Your task to perform on an android device: toggle javascript in the chrome app Image 0: 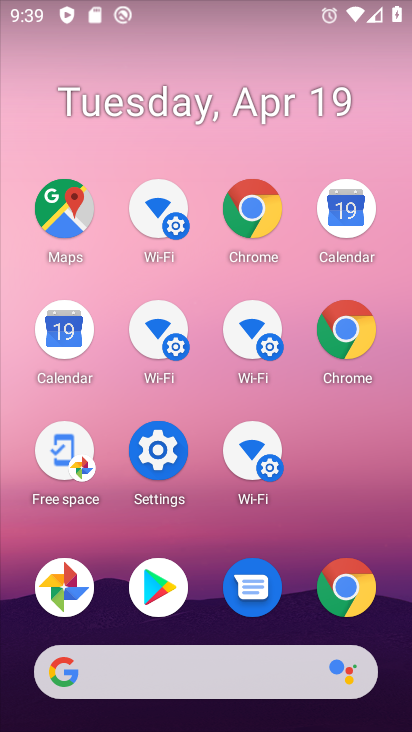
Step 0: click (335, 592)
Your task to perform on an android device: toggle javascript in the chrome app Image 1: 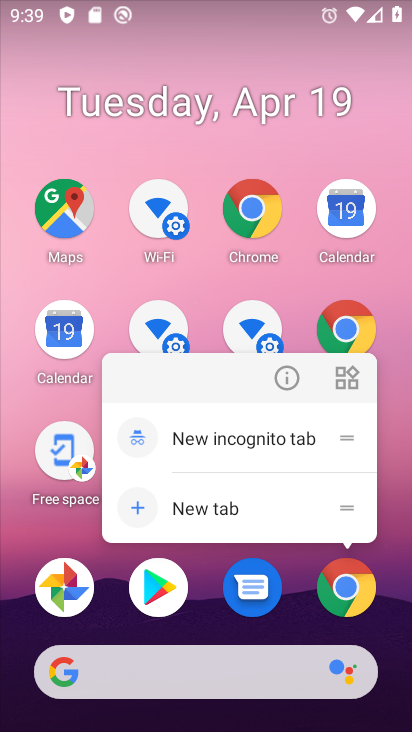
Step 1: click (349, 573)
Your task to perform on an android device: toggle javascript in the chrome app Image 2: 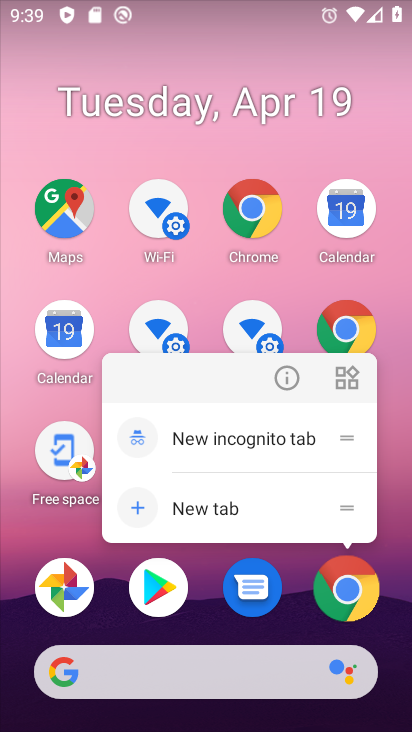
Step 2: click (349, 564)
Your task to perform on an android device: toggle javascript in the chrome app Image 3: 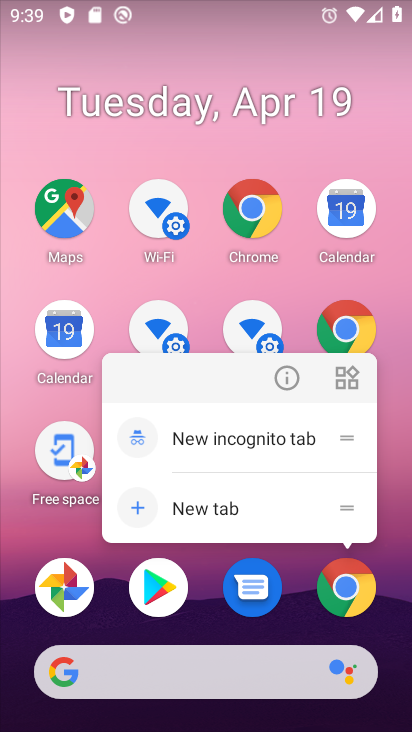
Step 3: click (382, 504)
Your task to perform on an android device: toggle javascript in the chrome app Image 4: 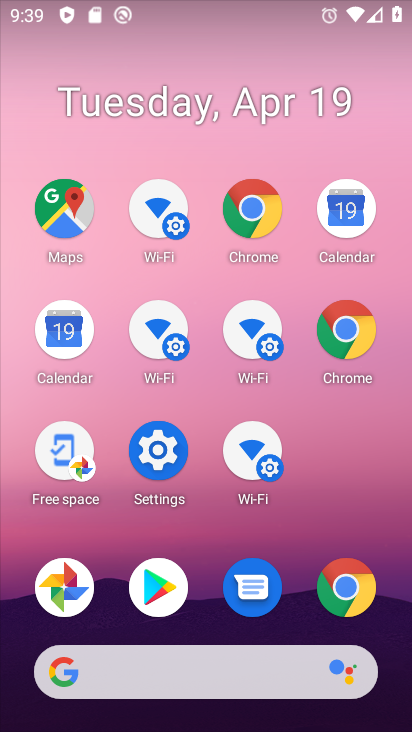
Step 4: click (351, 589)
Your task to perform on an android device: toggle javascript in the chrome app Image 5: 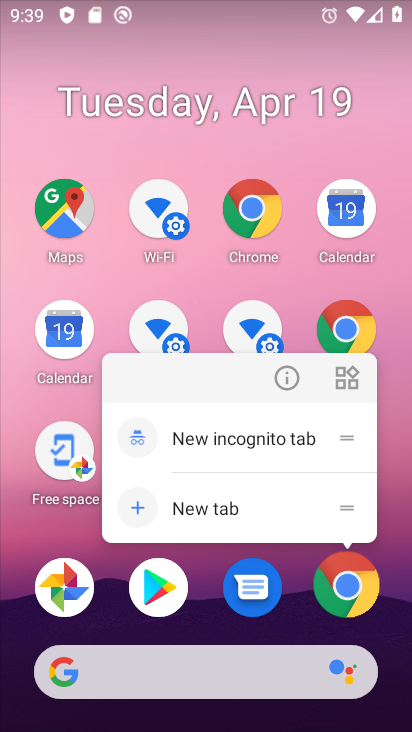
Step 5: click (351, 586)
Your task to perform on an android device: toggle javascript in the chrome app Image 6: 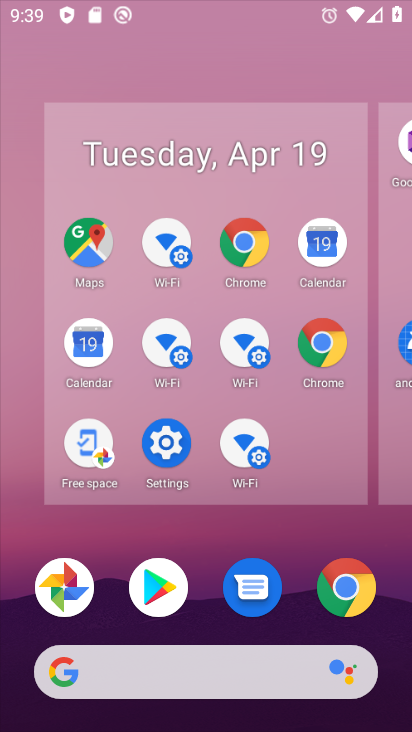
Step 6: click (358, 564)
Your task to perform on an android device: toggle javascript in the chrome app Image 7: 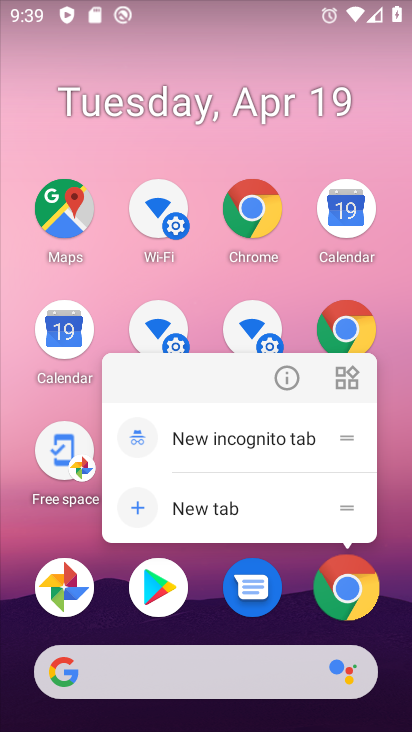
Step 7: click (350, 590)
Your task to perform on an android device: toggle javascript in the chrome app Image 8: 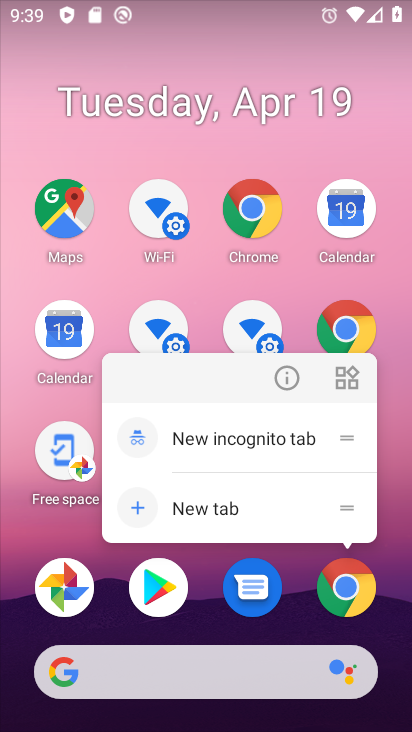
Step 8: click (341, 575)
Your task to perform on an android device: toggle javascript in the chrome app Image 9: 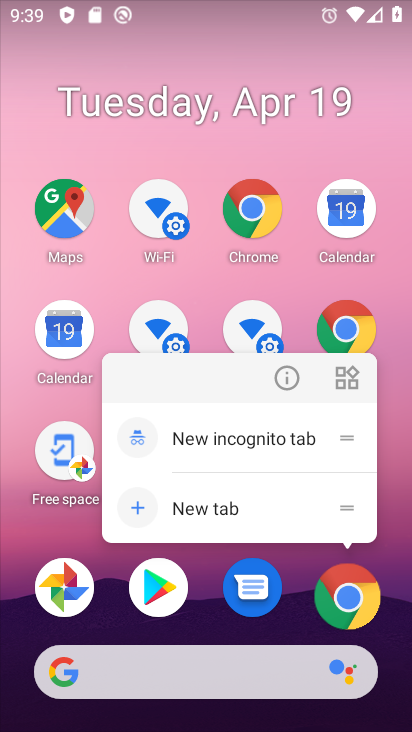
Step 9: click (395, 370)
Your task to perform on an android device: toggle javascript in the chrome app Image 10: 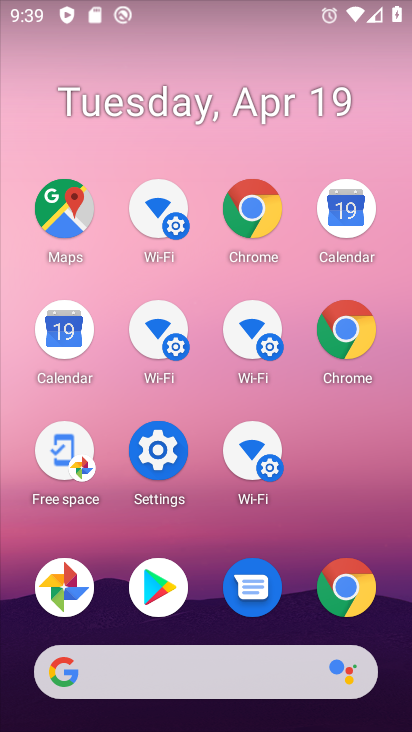
Step 10: click (345, 327)
Your task to perform on an android device: toggle javascript in the chrome app Image 11: 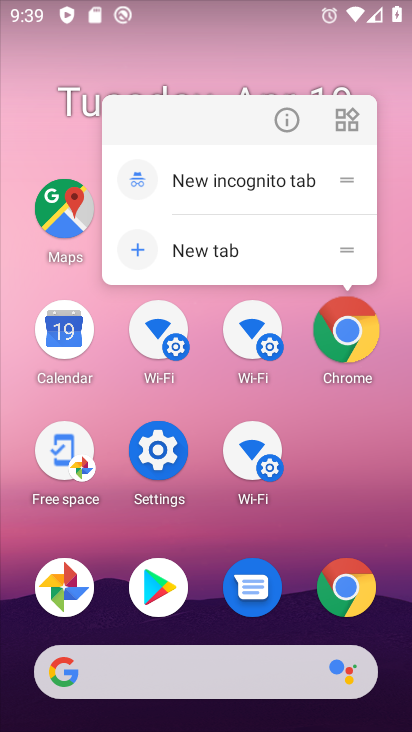
Step 11: click (345, 327)
Your task to perform on an android device: toggle javascript in the chrome app Image 12: 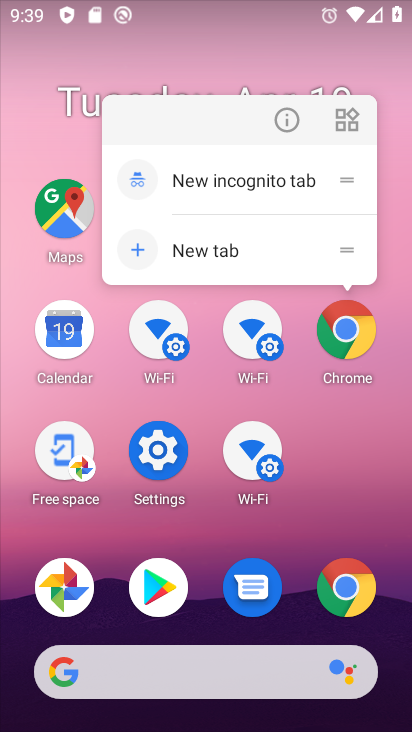
Step 12: click (345, 327)
Your task to perform on an android device: toggle javascript in the chrome app Image 13: 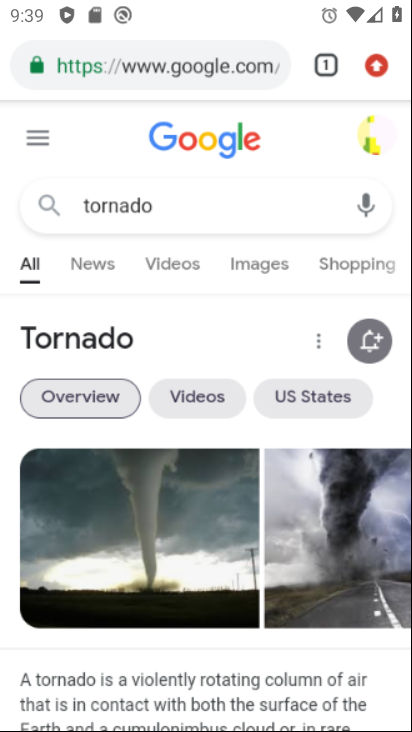
Step 13: click (345, 327)
Your task to perform on an android device: toggle javascript in the chrome app Image 14: 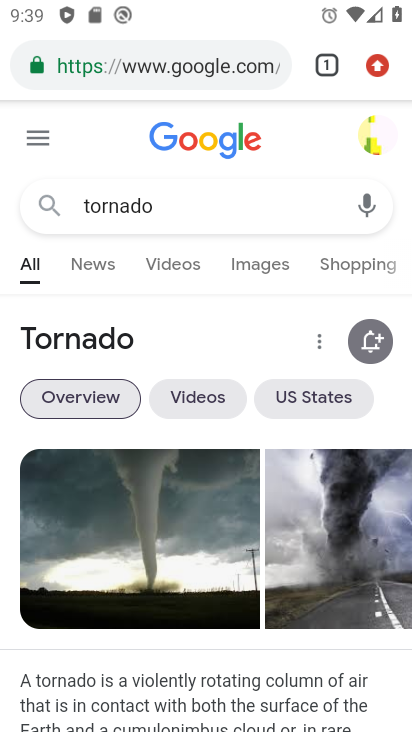
Step 14: click (378, 64)
Your task to perform on an android device: toggle javascript in the chrome app Image 15: 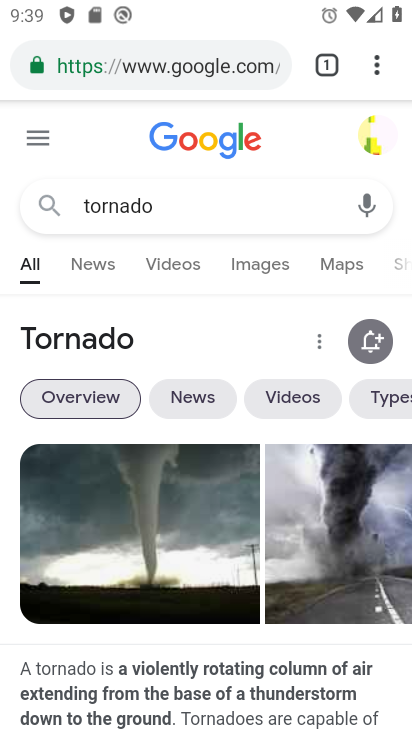
Step 15: click (374, 63)
Your task to perform on an android device: toggle javascript in the chrome app Image 16: 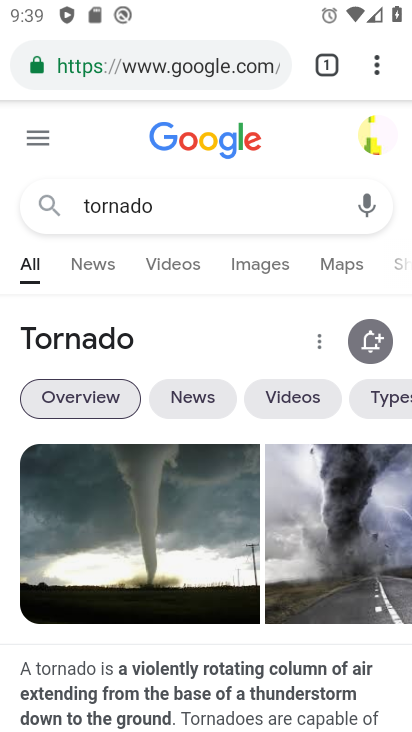
Step 16: click (373, 59)
Your task to perform on an android device: toggle javascript in the chrome app Image 17: 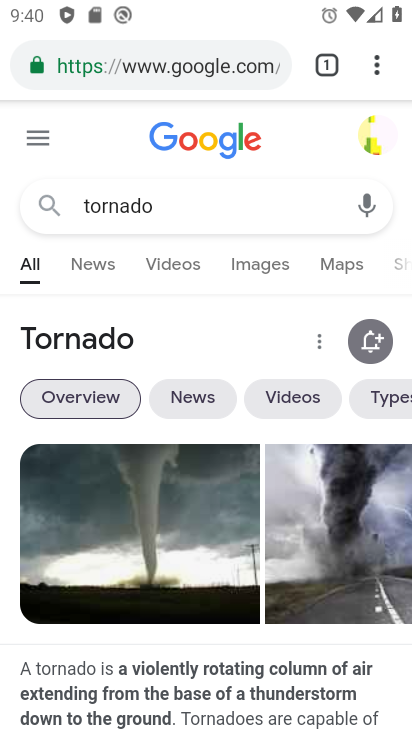
Step 17: click (378, 66)
Your task to perform on an android device: toggle javascript in the chrome app Image 18: 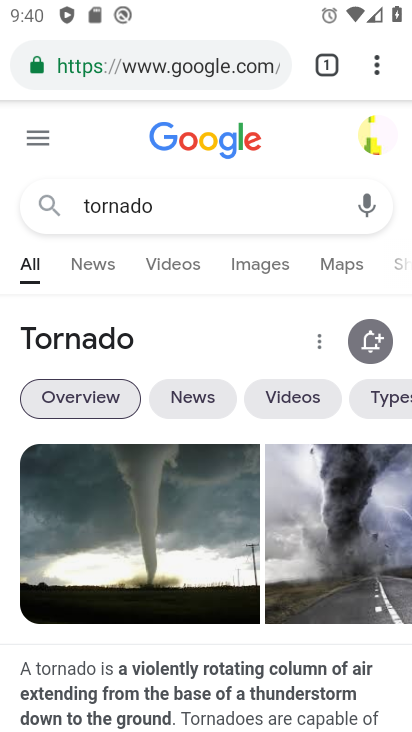
Step 18: click (376, 70)
Your task to perform on an android device: toggle javascript in the chrome app Image 19: 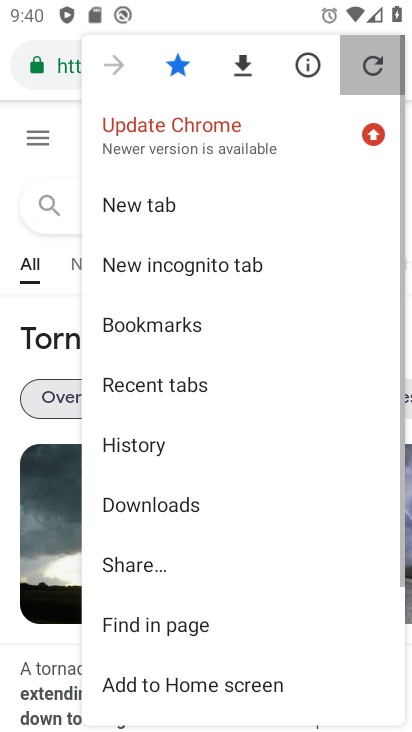
Step 19: drag from (191, 273) to (251, 481)
Your task to perform on an android device: toggle javascript in the chrome app Image 20: 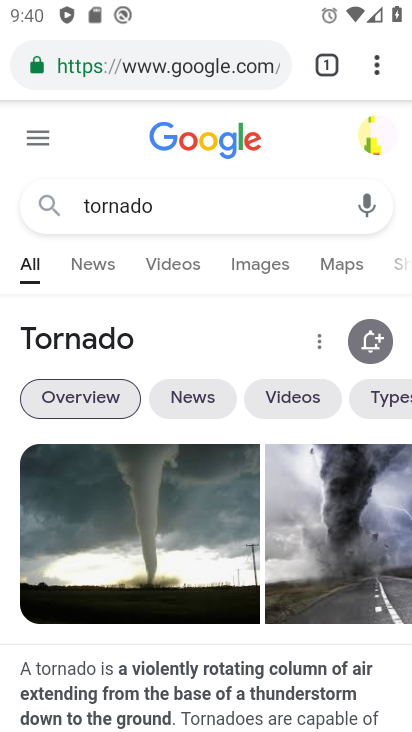
Step 20: click (378, 63)
Your task to perform on an android device: toggle javascript in the chrome app Image 21: 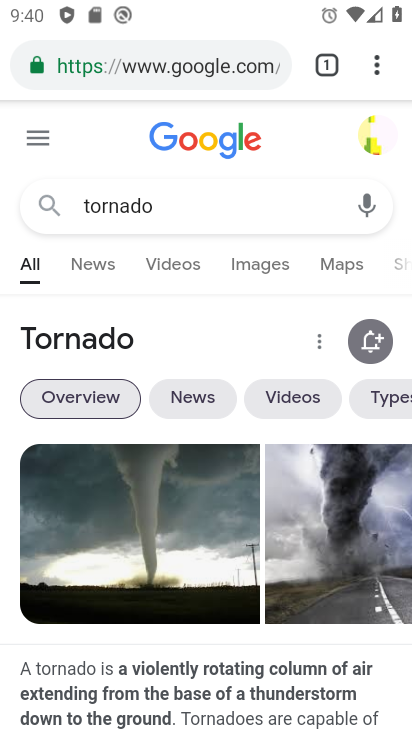
Step 21: click (370, 67)
Your task to perform on an android device: toggle javascript in the chrome app Image 22: 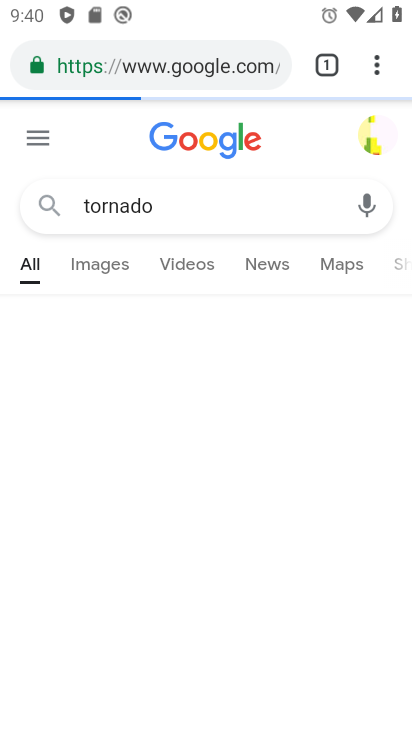
Step 22: click (374, 67)
Your task to perform on an android device: toggle javascript in the chrome app Image 23: 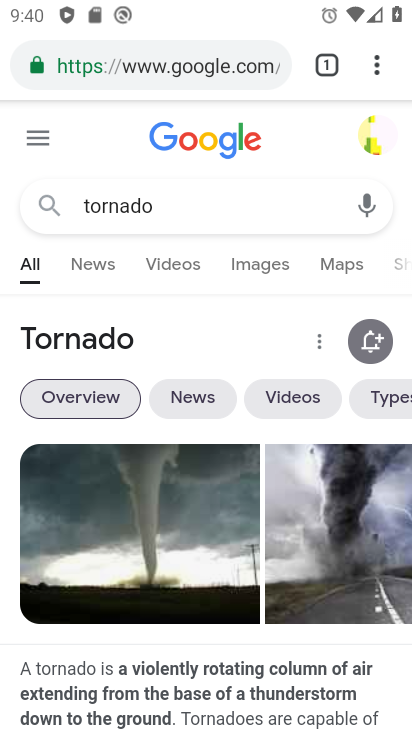
Step 23: click (369, 67)
Your task to perform on an android device: toggle javascript in the chrome app Image 24: 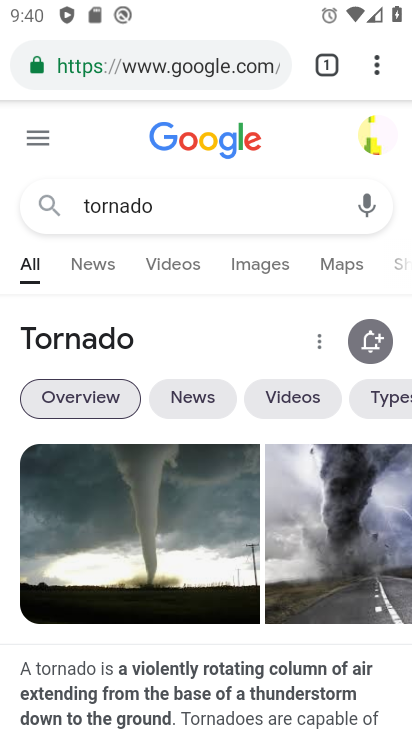
Step 24: click (376, 66)
Your task to perform on an android device: toggle javascript in the chrome app Image 25: 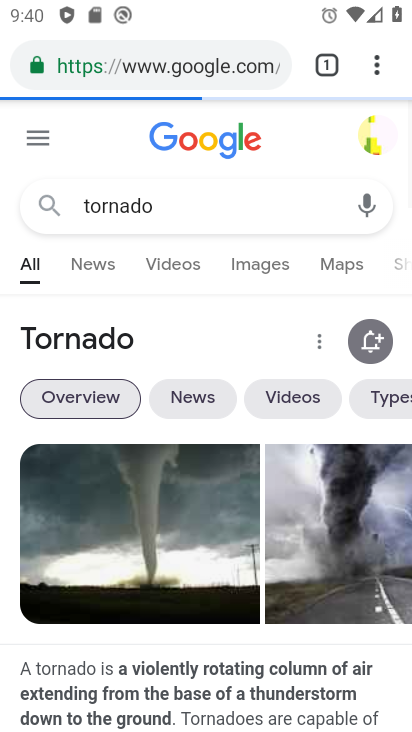
Step 25: drag from (376, 66) to (333, 602)
Your task to perform on an android device: toggle javascript in the chrome app Image 26: 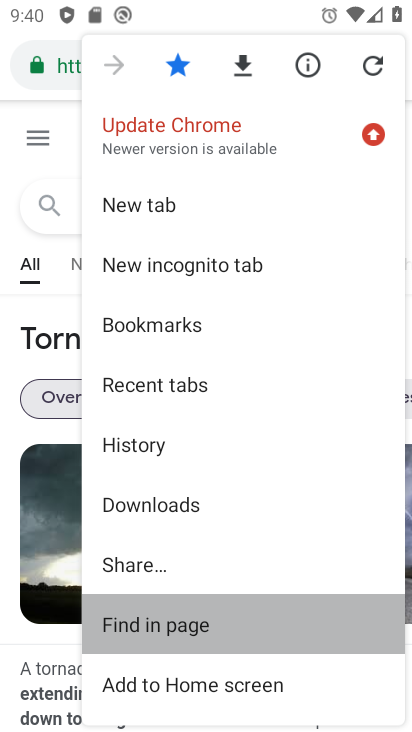
Step 26: drag from (321, 536) to (297, 370)
Your task to perform on an android device: toggle javascript in the chrome app Image 27: 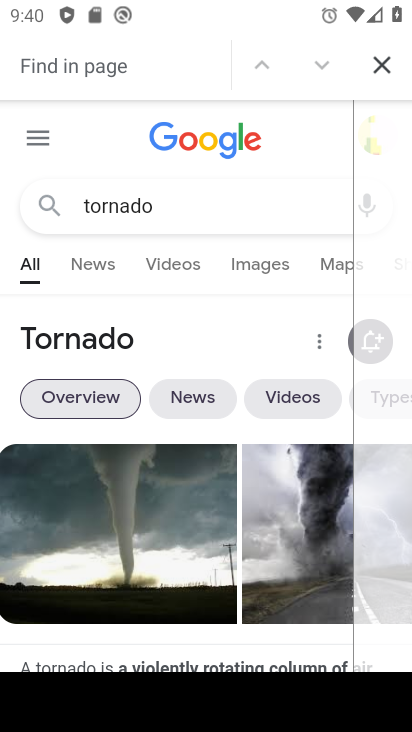
Step 27: click (373, 65)
Your task to perform on an android device: toggle javascript in the chrome app Image 28: 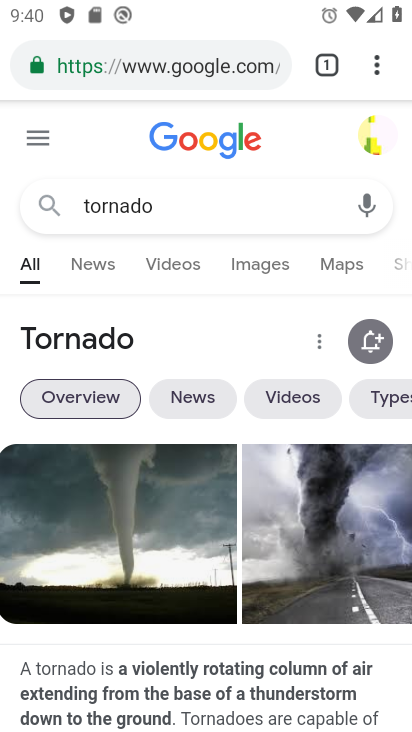
Step 28: click (381, 62)
Your task to perform on an android device: toggle javascript in the chrome app Image 29: 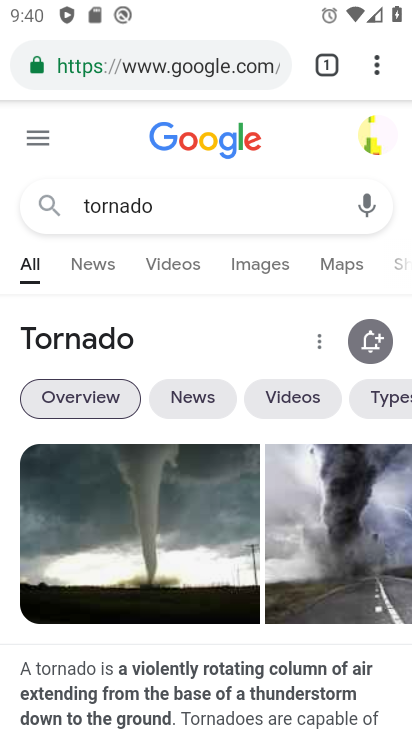
Step 29: drag from (378, 65) to (287, 351)
Your task to perform on an android device: toggle javascript in the chrome app Image 30: 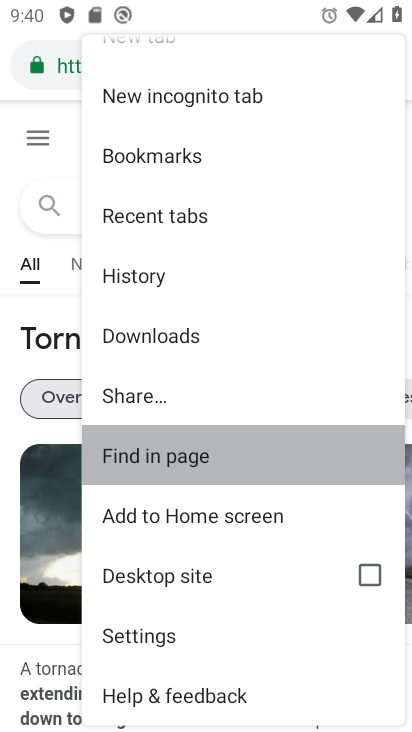
Step 30: drag from (331, 438) to (258, 350)
Your task to perform on an android device: toggle javascript in the chrome app Image 31: 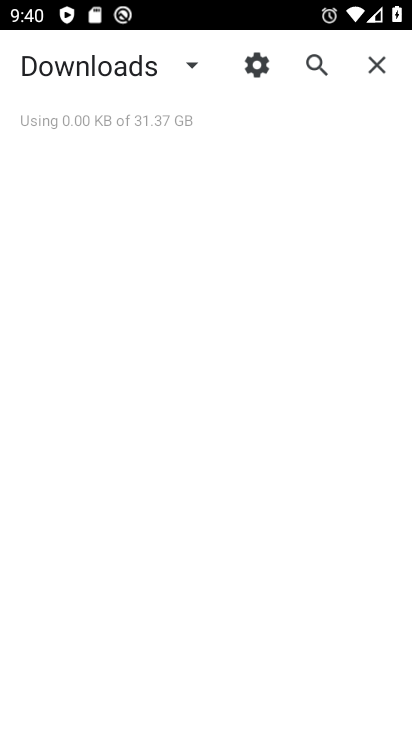
Step 31: click (368, 68)
Your task to perform on an android device: toggle javascript in the chrome app Image 32: 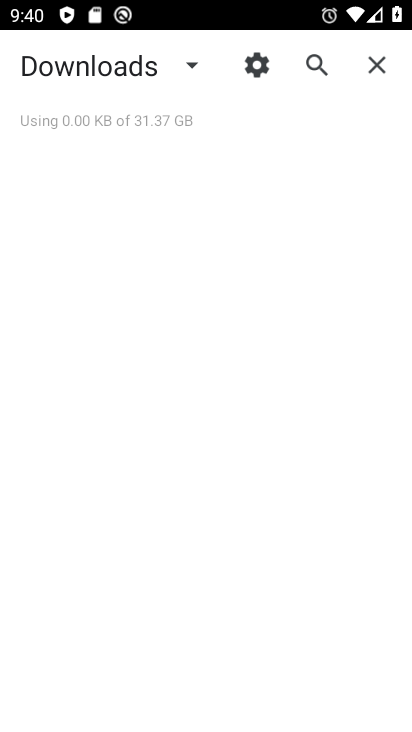
Step 32: click (368, 68)
Your task to perform on an android device: toggle javascript in the chrome app Image 33: 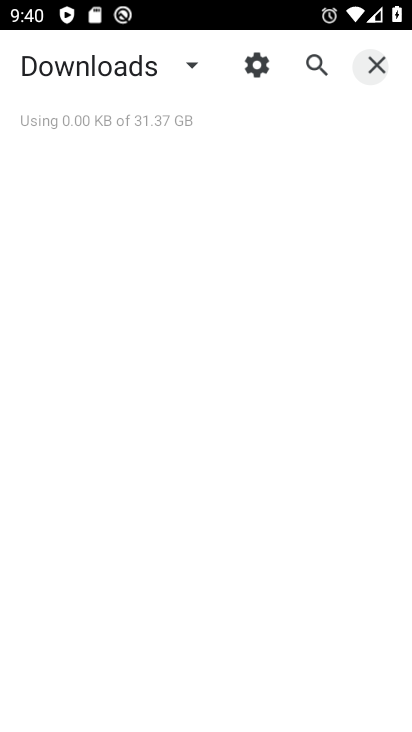
Step 33: click (369, 69)
Your task to perform on an android device: toggle javascript in the chrome app Image 34: 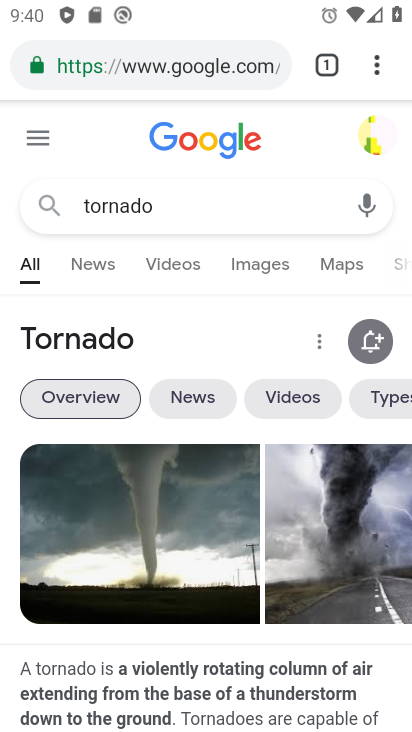
Step 34: drag from (372, 64) to (331, 293)
Your task to perform on an android device: toggle javascript in the chrome app Image 35: 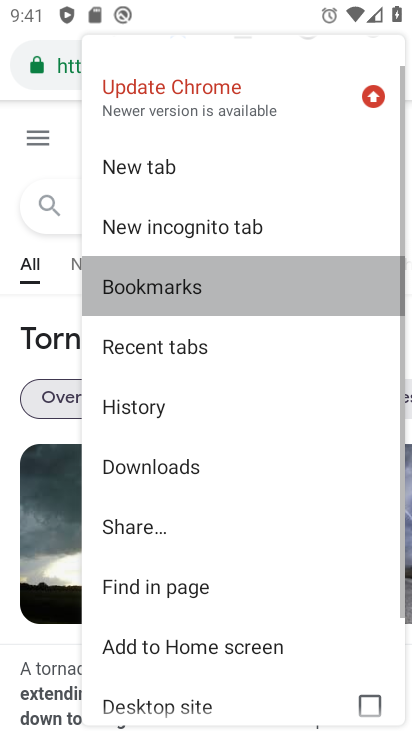
Step 35: drag from (339, 535) to (356, 469)
Your task to perform on an android device: toggle javascript in the chrome app Image 36: 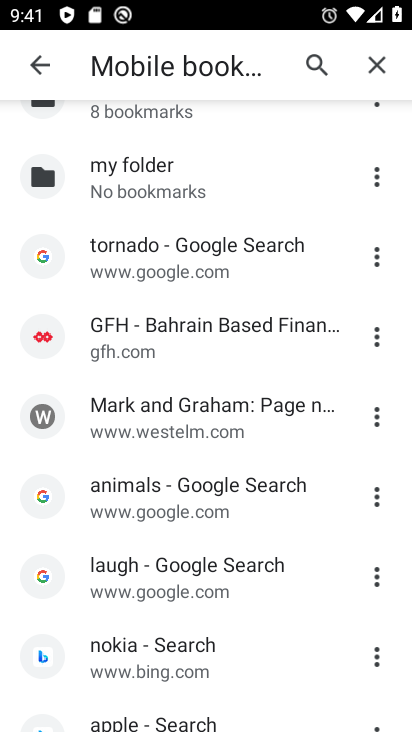
Step 36: click (20, 58)
Your task to perform on an android device: toggle javascript in the chrome app Image 37: 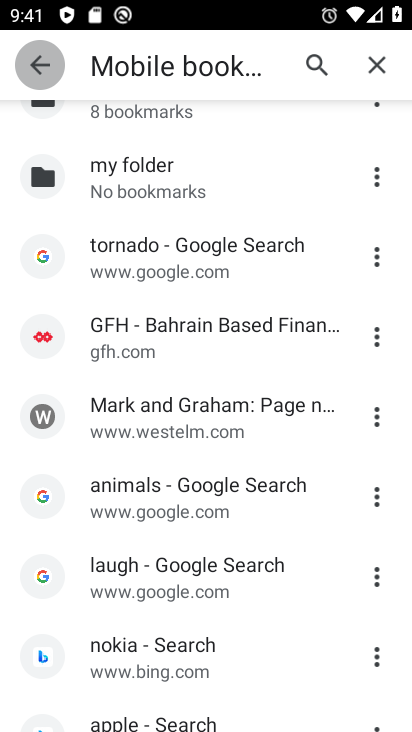
Step 37: click (32, 66)
Your task to perform on an android device: toggle javascript in the chrome app Image 38: 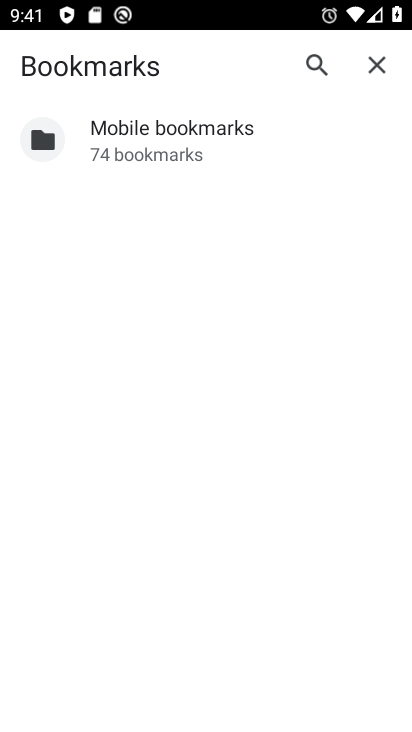
Step 38: click (380, 61)
Your task to perform on an android device: toggle javascript in the chrome app Image 39: 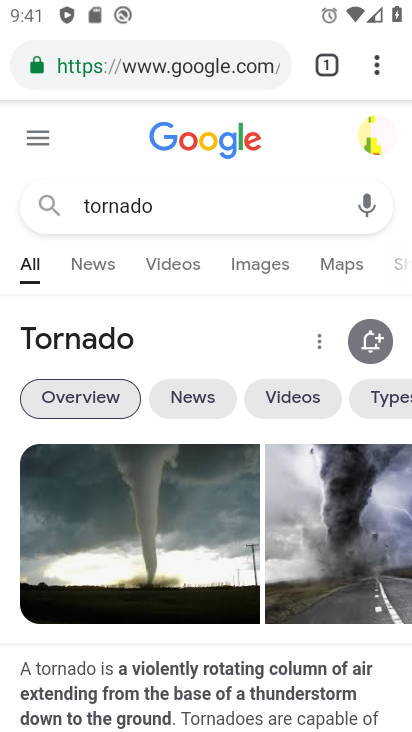
Step 39: click (373, 63)
Your task to perform on an android device: toggle javascript in the chrome app Image 40: 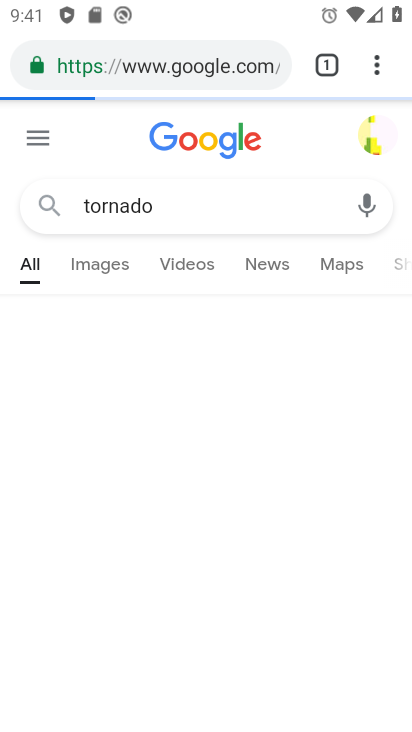
Step 40: drag from (319, 482) to (305, 515)
Your task to perform on an android device: toggle javascript in the chrome app Image 41: 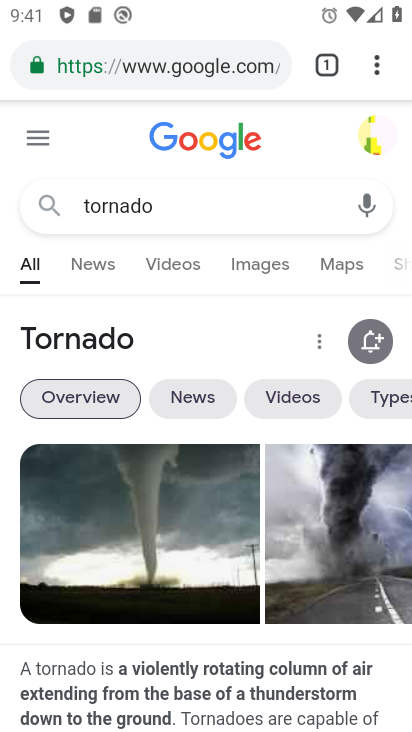
Step 41: click (372, 62)
Your task to perform on an android device: toggle javascript in the chrome app Image 42: 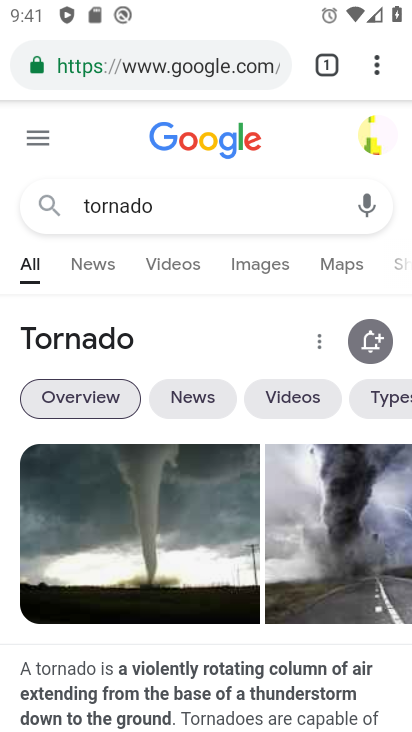
Step 42: drag from (347, 326) to (335, 407)
Your task to perform on an android device: toggle javascript in the chrome app Image 43: 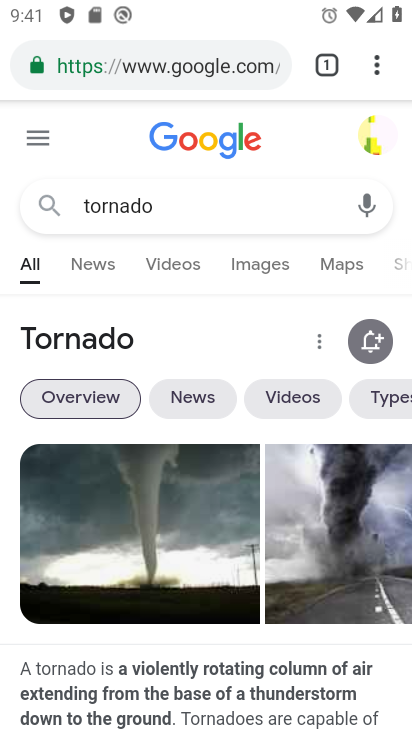
Step 43: drag from (375, 55) to (218, 652)
Your task to perform on an android device: toggle javascript in the chrome app Image 44: 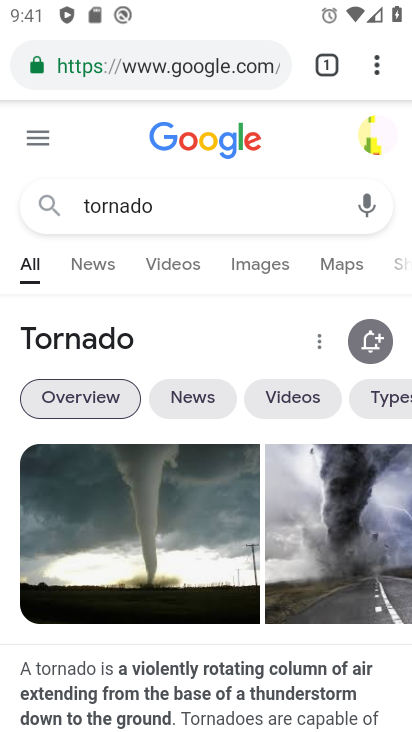
Step 44: drag from (226, 600) to (245, 177)
Your task to perform on an android device: toggle javascript in the chrome app Image 45: 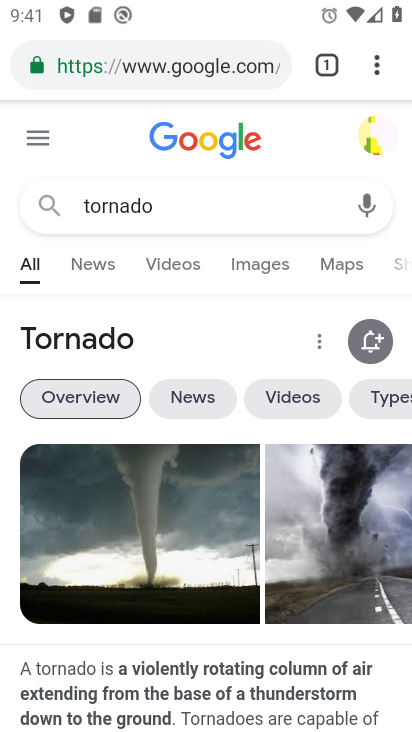
Step 45: click (372, 63)
Your task to perform on an android device: toggle javascript in the chrome app Image 46: 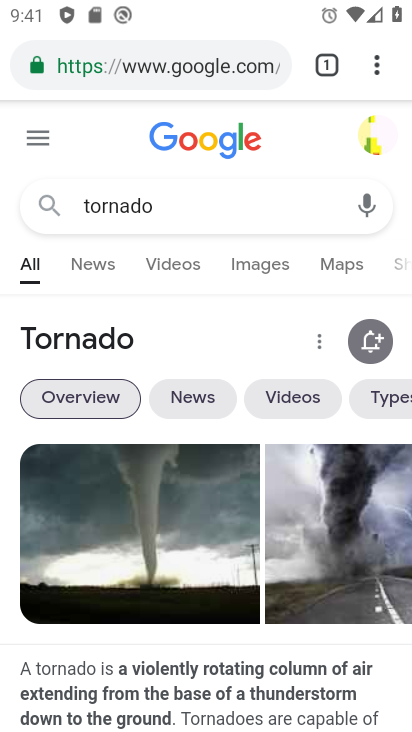
Step 46: drag from (374, 65) to (155, 634)
Your task to perform on an android device: toggle javascript in the chrome app Image 47: 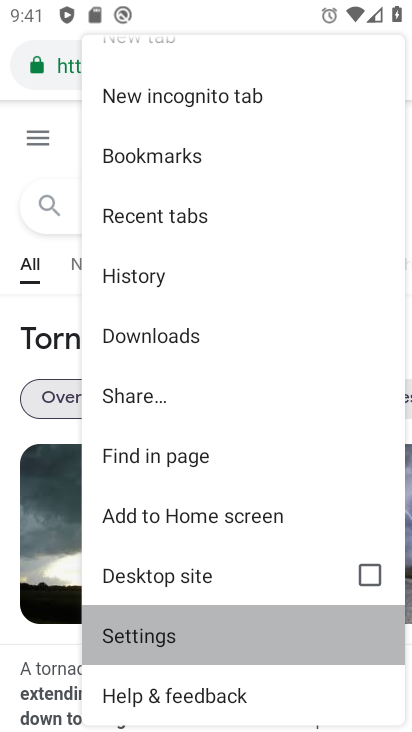
Step 47: click (155, 634)
Your task to perform on an android device: toggle javascript in the chrome app Image 48: 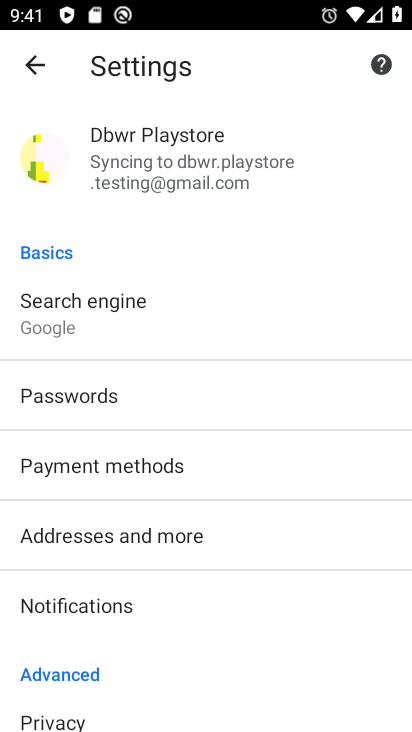
Step 48: drag from (155, 634) to (103, 220)
Your task to perform on an android device: toggle javascript in the chrome app Image 49: 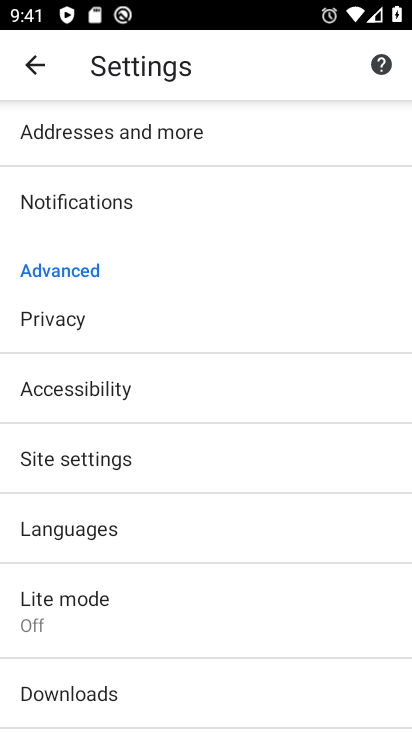
Step 49: click (63, 456)
Your task to perform on an android device: toggle javascript in the chrome app Image 50: 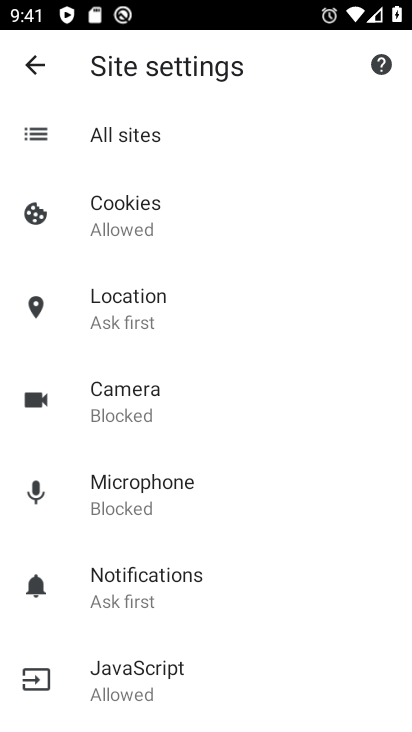
Step 50: click (136, 671)
Your task to perform on an android device: toggle javascript in the chrome app Image 51: 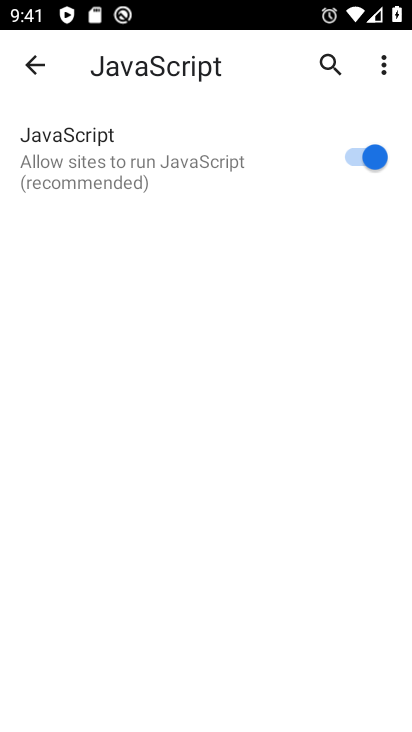
Step 51: click (367, 145)
Your task to perform on an android device: toggle javascript in the chrome app Image 52: 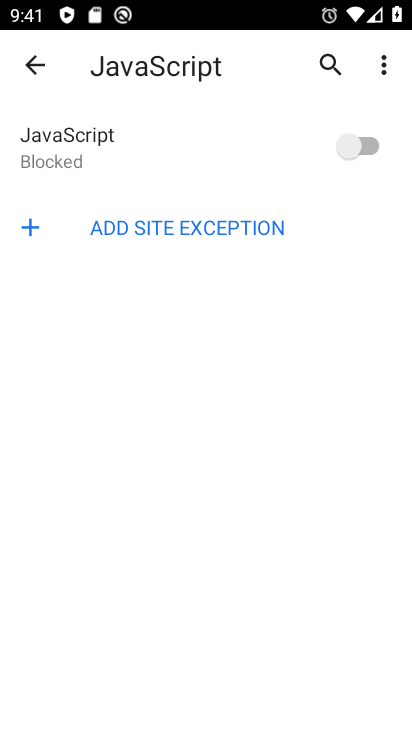
Step 52: task complete